Your task to perform on an android device: Search for sushi restaurants on Maps Image 0: 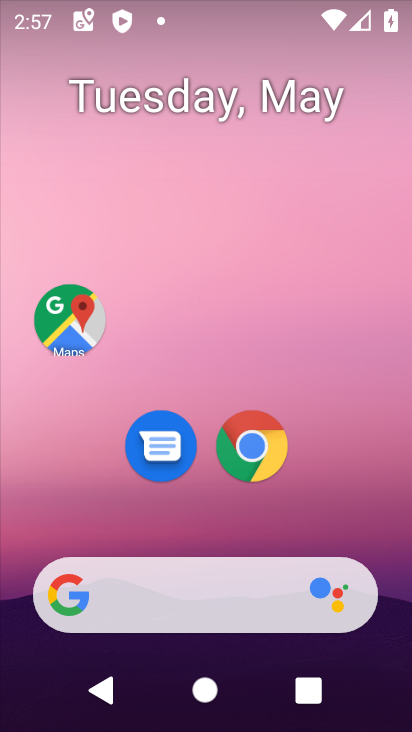
Step 0: click (81, 322)
Your task to perform on an android device: Search for sushi restaurants on Maps Image 1: 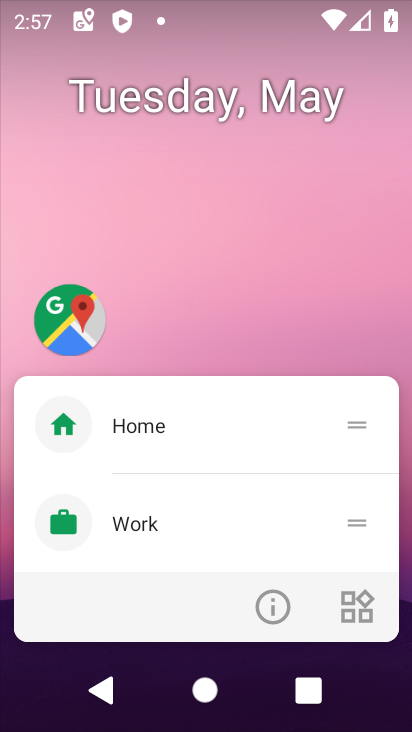
Step 1: click (87, 327)
Your task to perform on an android device: Search for sushi restaurants on Maps Image 2: 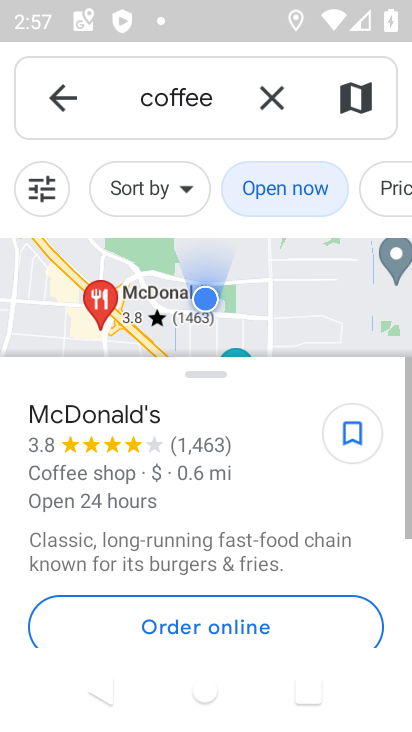
Step 2: click (267, 102)
Your task to perform on an android device: Search for sushi restaurants on Maps Image 3: 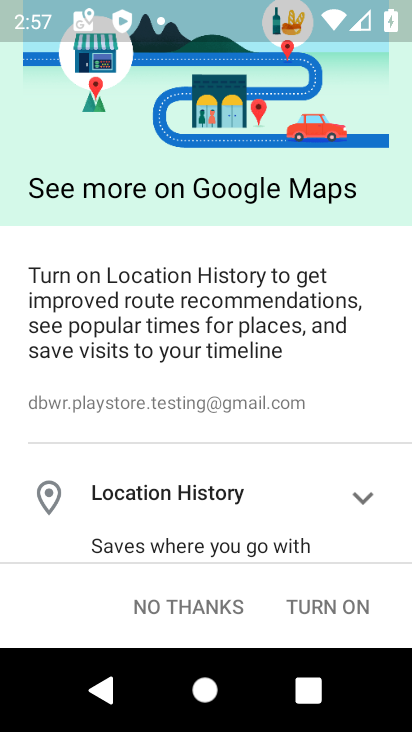
Step 3: click (209, 600)
Your task to perform on an android device: Search for sushi restaurants on Maps Image 4: 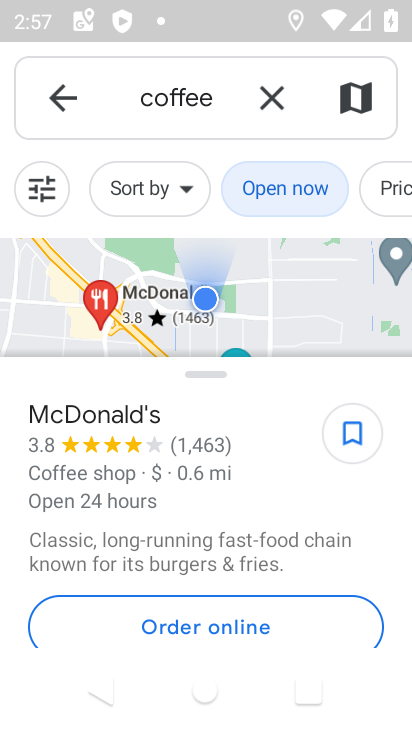
Step 4: click (284, 102)
Your task to perform on an android device: Search for sushi restaurants on Maps Image 5: 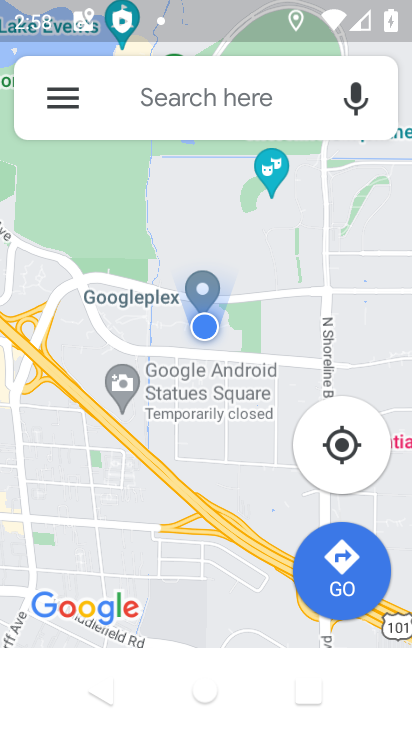
Step 5: click (179, 100)
Your task to perform on an android device: Search for sushi restaurants on Maps Image 6: 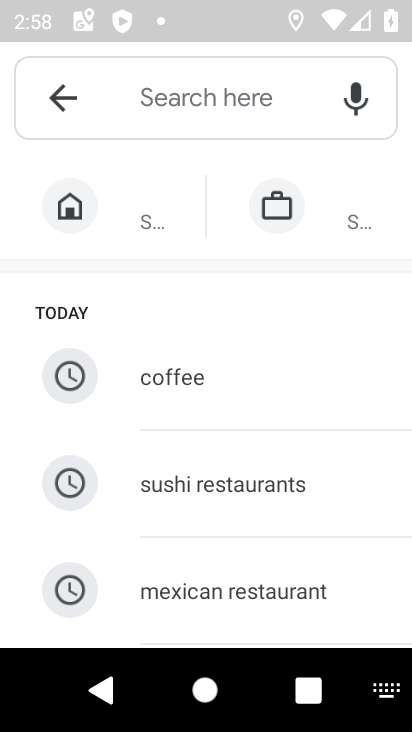
Step 6: type "sushi restaurants"
Your task to perform on an android device: Search for sushi restaurants on Maps Image 7: 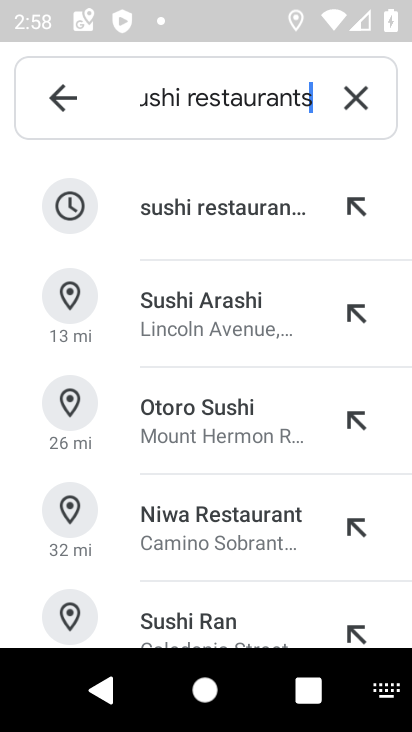
Step 7: click (290, 229)
Your task to perform on an android device: Search for sushi restaurants on Maps Image 8: 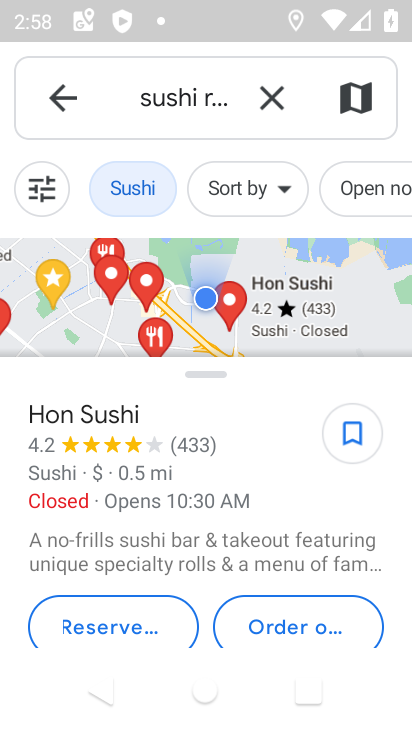
Step 8: task complete